Your task to perform on an android device: Open Reddit.com Image 0: 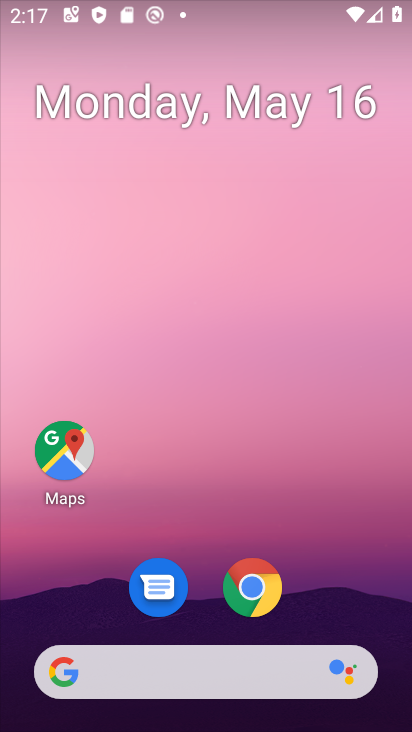
Step 0: drag from (376, 625) to (190, 380)
Your task to perform on an android device: Open Reddit.com Image 1: 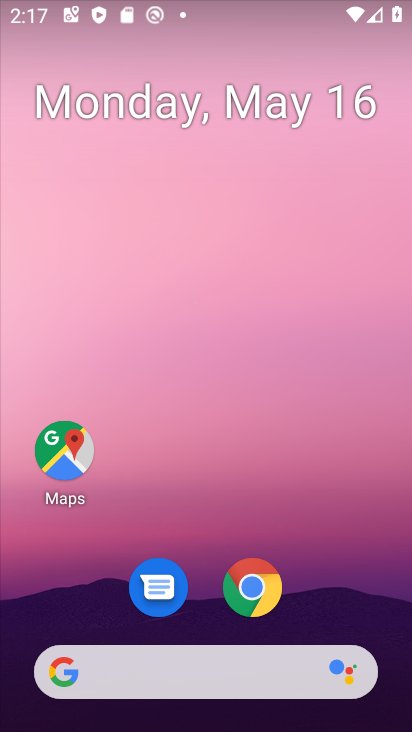
Step 1: drag from (308, 583) to (92, 151)
Your task to perform on an android device: Open Reddit.com Image 2: 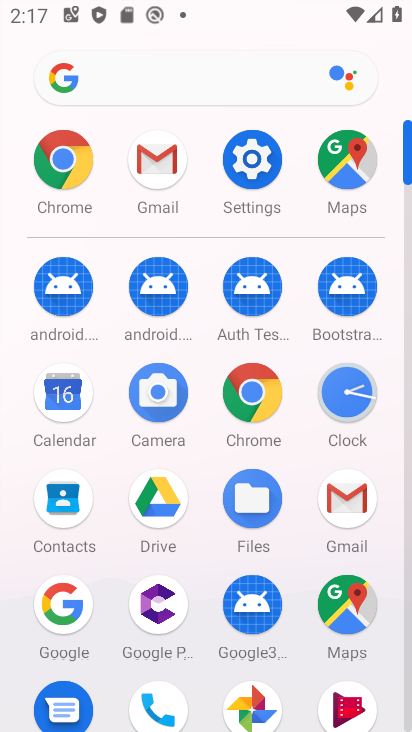
Step 2: click (51, 154)
Your task to perform on an android device: Open Reddit.com Image 3: 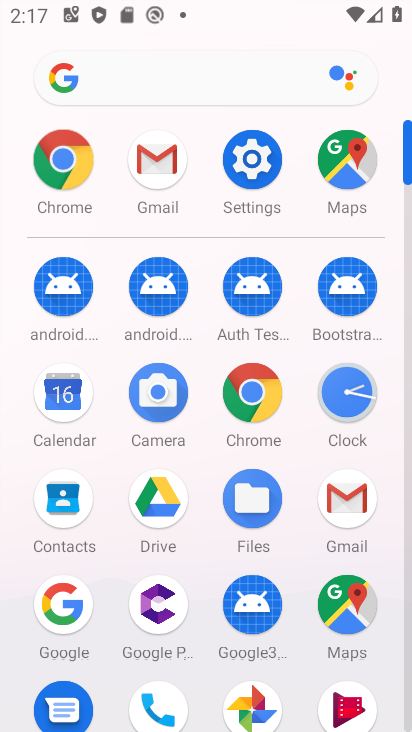
Step 3: click (51, 155)
Your task to perform on an android device: Open Reddit.com Image 4: 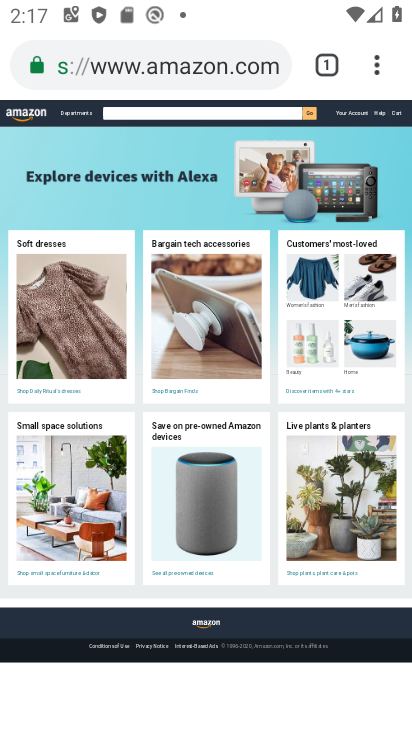
Step 4: click (374, 56)
Your task to perform on an android device: Open Reddit.com Image 5: 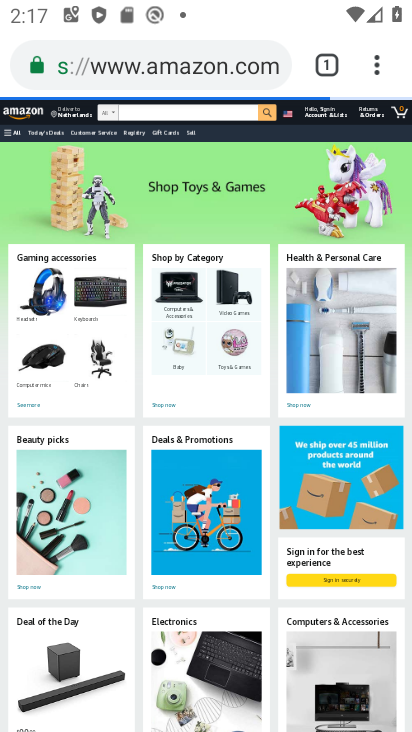
Step 5: drag from (377, 62) to (124, 135)
Your task to perform on an android device: Open Reddit.com Image 6: 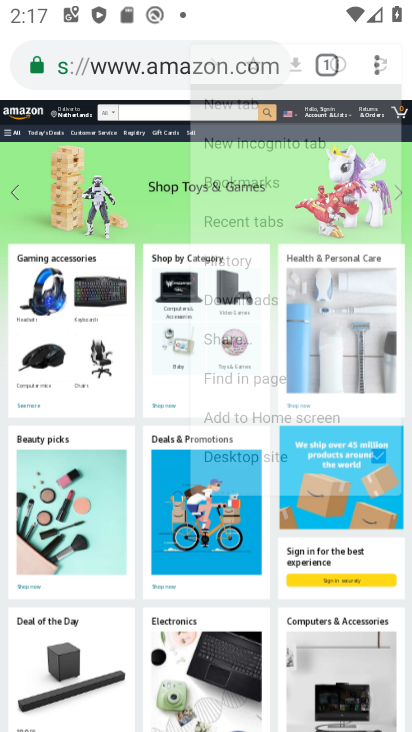
Step 6: click (125, 134)
Your task to perform on an android device: Open Reddit.com Image 7: 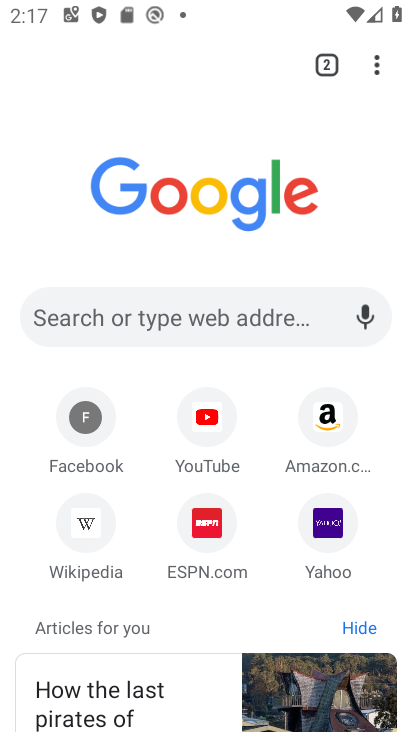
Step 7: click (70, 312)
Your task to perform on an android device: Open Reddit.com Image 8: 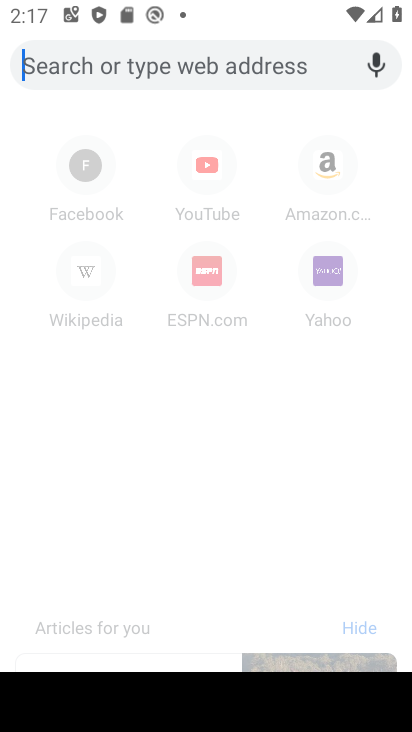
Step 8: type "reddit.com"
Your task to perform on an android device: Open Reddit.com Image 9: 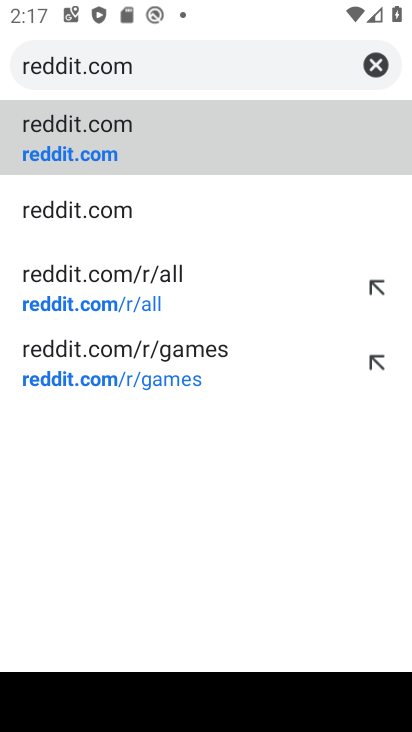
Step 9: click (67, 160)
Your task to perform on an android device: Open Reddit.com Image 10: 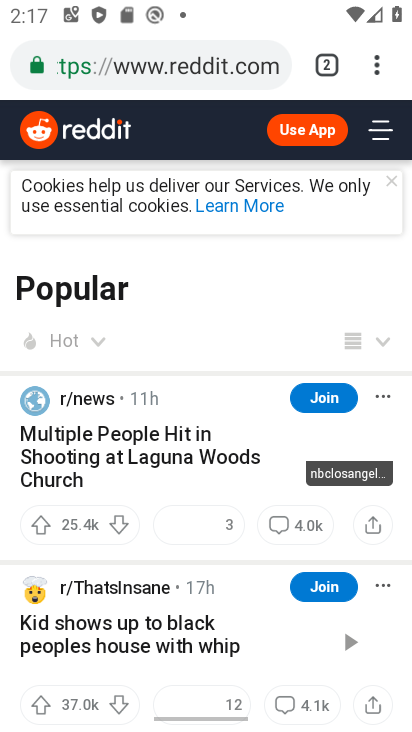
Step 10: task complete